Your task to perform on an android device: change text size in settings app Image 0: 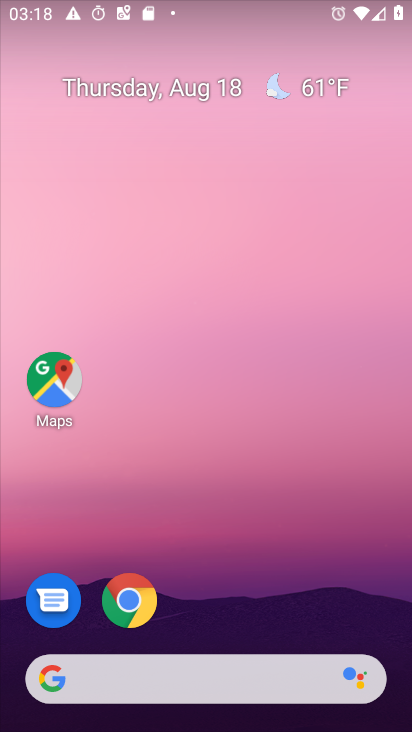
Step 0: press home button
Your task to perform on an android device: change text size in settings app Image 1: 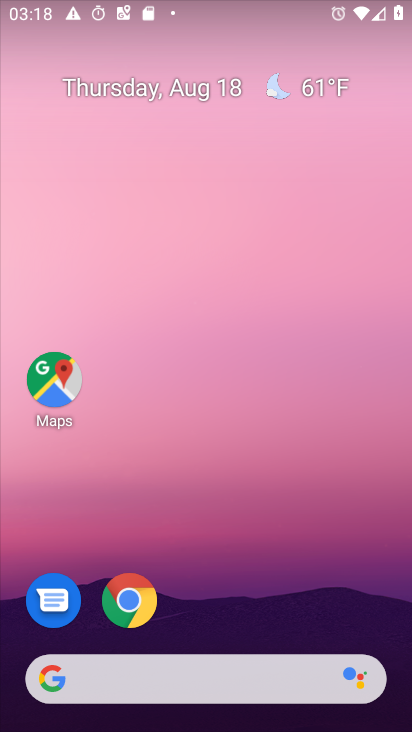
Step 1: drag from (268, 631) to (285, 21)
Your task to perform on an android device: change text size in settings app Image 2: 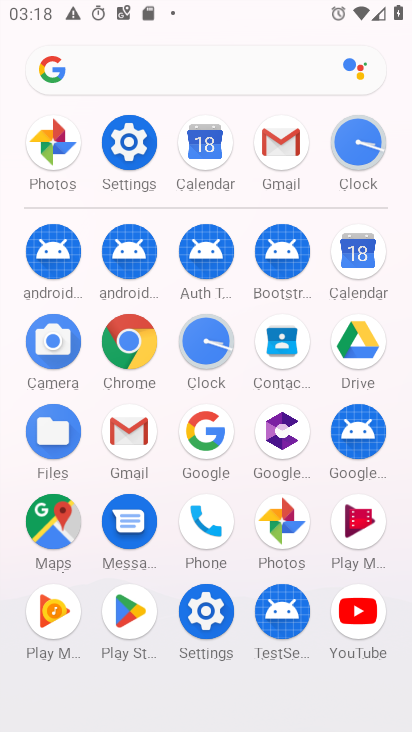
Step 2: click (115, 158)
Your task to perform on an android device: change text size in settings app Image 3: 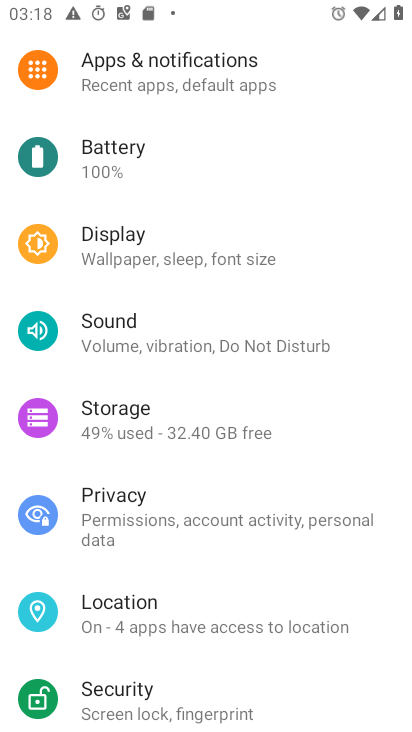
Step 3: drag from (320, 649) to (286, 176)
Your task to perform on an android device: change text size in settings app Image 4: 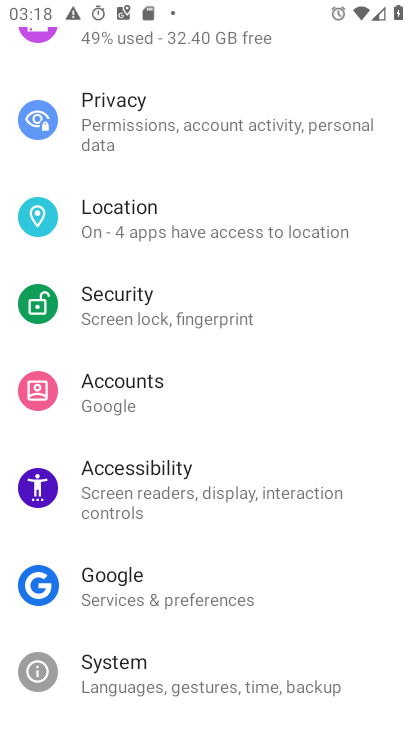
Step 4: drag from (277, 189) to (214, 549)
Your task to perform on an android device: change text size in settings app Image 5: 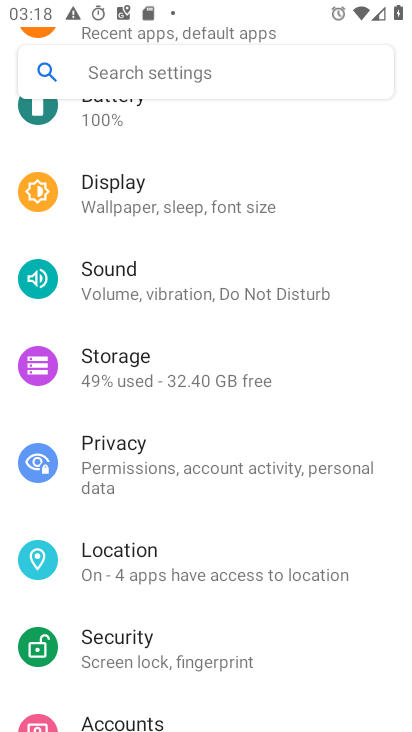
Step 5: click (158, 201)
Your task to perform on an android device: change text size in settings app Image 6: 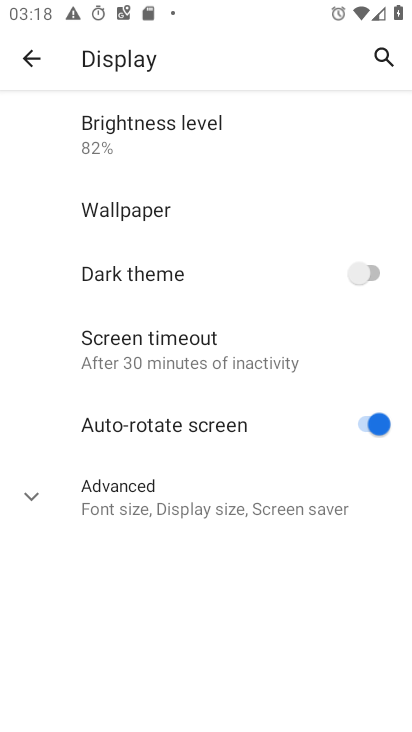
Step 6: click (112, 490)
Your task to perform on an android device: change text size in settings app Image 7: 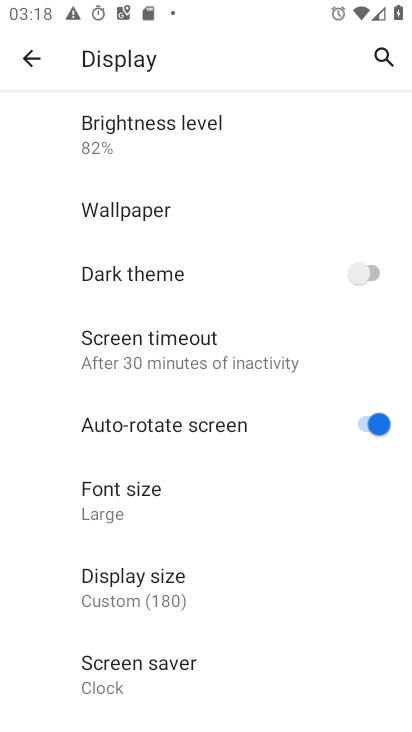
Step 7: click (112, 500)
Your task to perform on an android device: change text size in settings app Image 8: 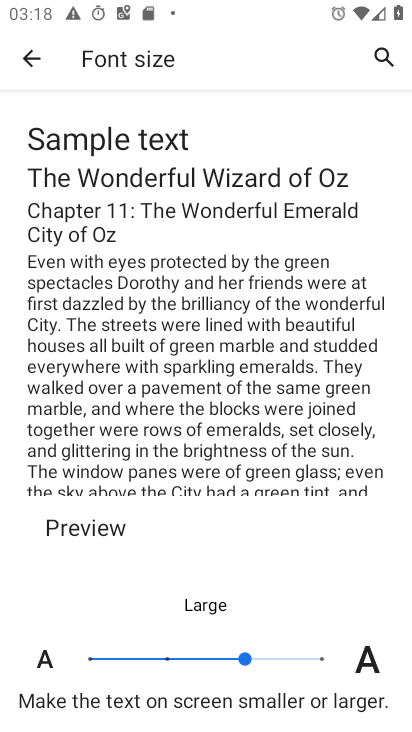
Step 8: click (319, 660)
Your task to perform on an android device: change text size in settings app Image 9: 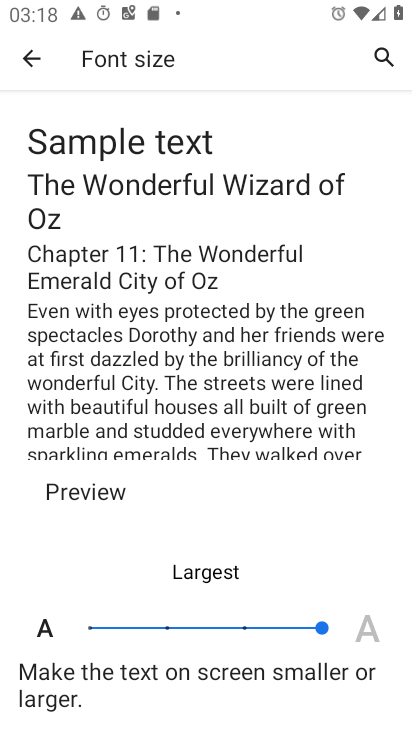
Step 9: task complete